Your task to perform on an android device: Go to Amazon Image 0: 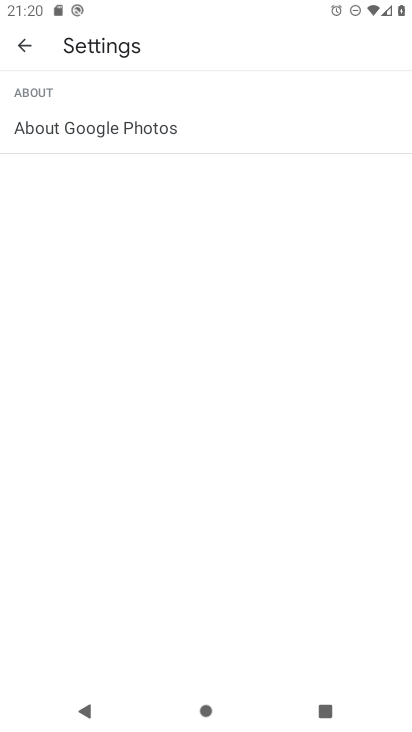
Step 0: press home button
Your task to perform on an android device: Go to Amazon Image 1: 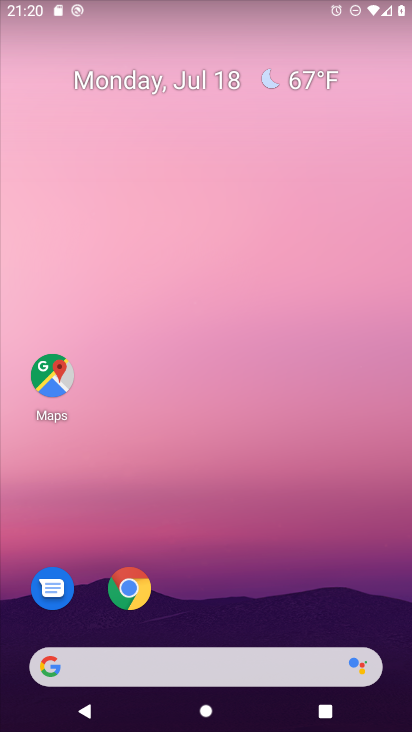
Step 1: click (133, 592)
Your task to perform on an android device: Go to Amazon Image 2: 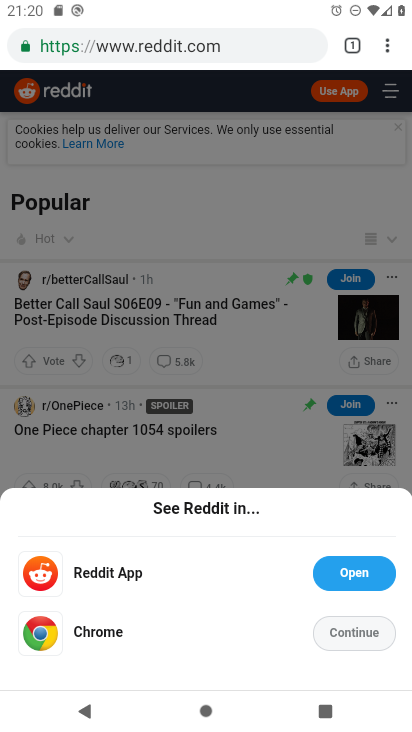
Step 2: click (251, 51)
Your task to perform on an android device: Go to Amazon Image 3: 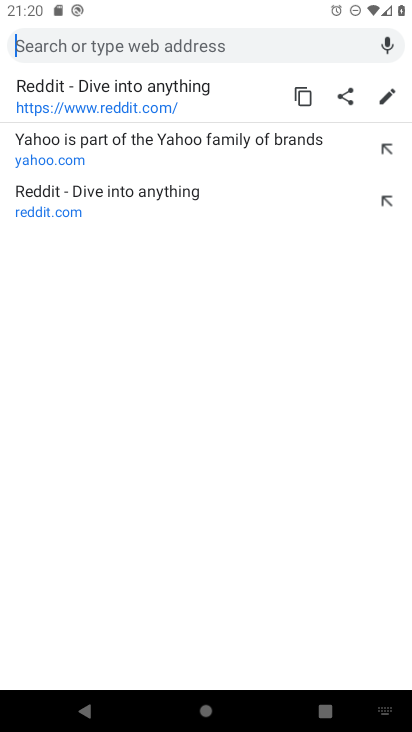
Step 3: type "amazon"
Your task to perform on an android device: Go to Amazon Image 4: 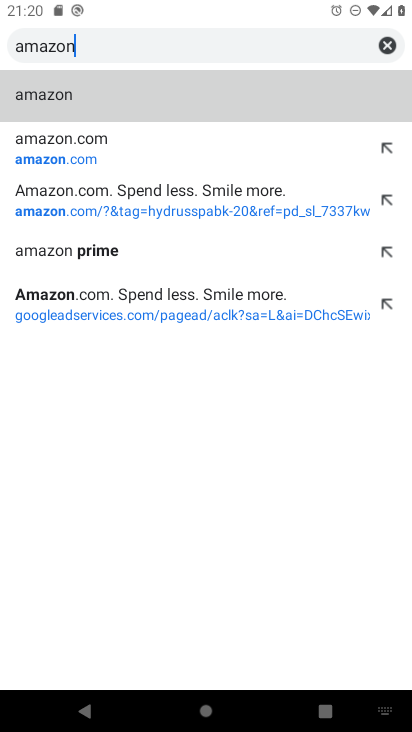
Step 4: click (63, 112)
Your task to perform on an android device: Go to Amazon Image 5: 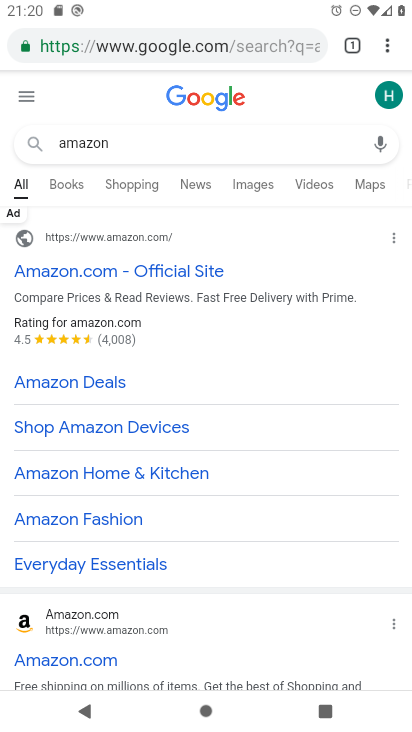
Step 5: click (65, 264)
Your task to perform on an android device: Go to Amazon Image 6: 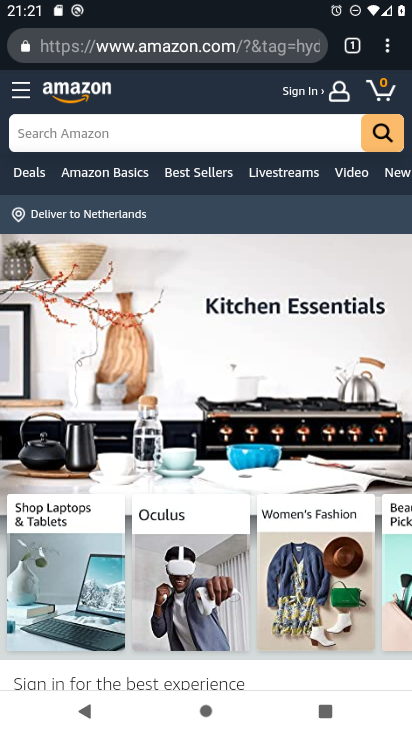
Step 6: task complete